Your task to perform on an android device: Open accessibility settings Image 0: 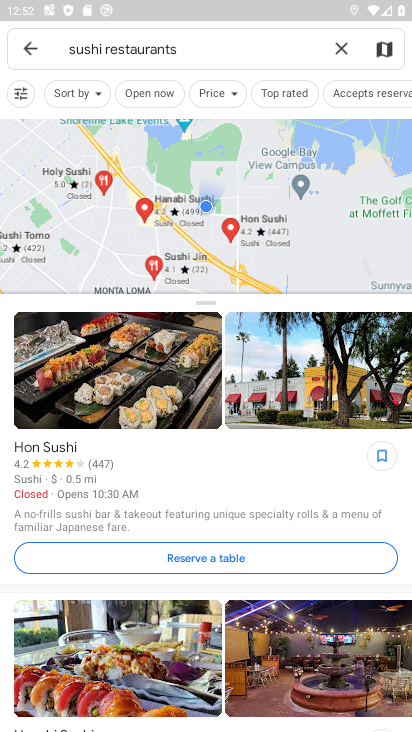
Step 0: press home button
Your task to perform on an android device: Open accessibility settings Image 1: 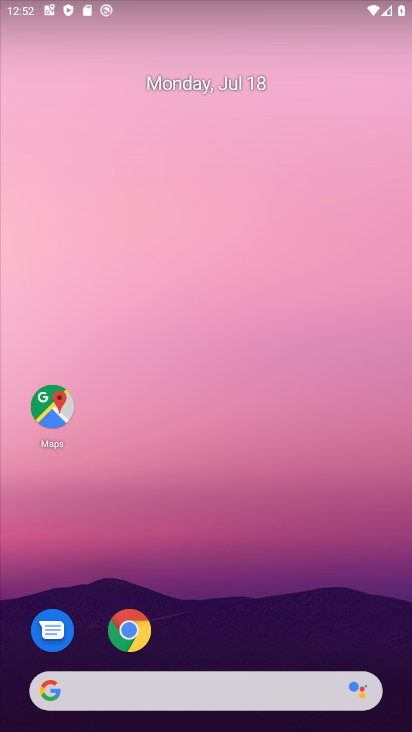
Step 1: drag from (350, 639) to (288, 184)
Your task to perform on an android device: Open accessibility settings Image 2: 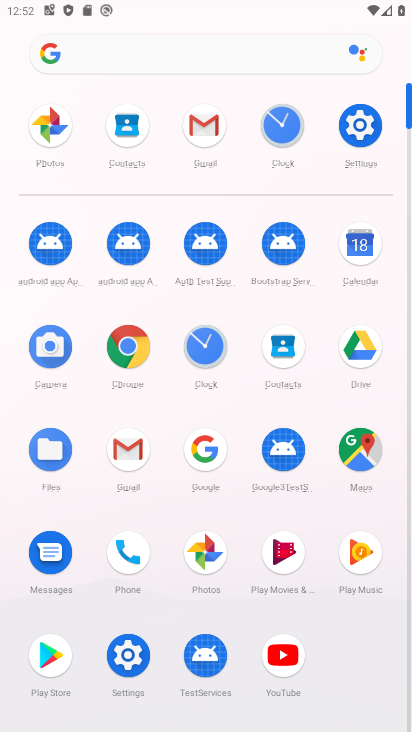
Step 2: click (359, 130)
Your task to perform on an android device: Open accessibility settings Image 3: 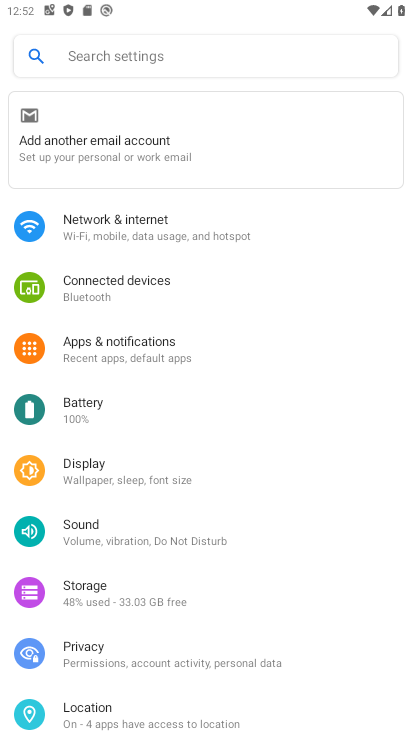
Step 3: drag from (310, 607) to (308, 57)
Your task to perform on an android device: Open accessibility settings Image 4: 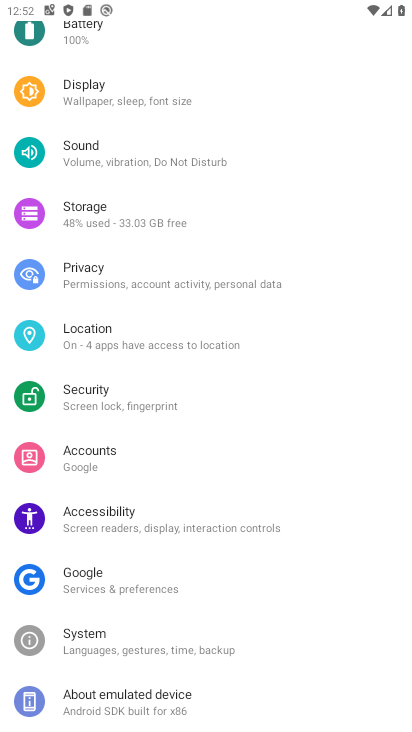
Step 4: click (265, 516)
Your task to perform on an android device: Open accessibility settings Image 5: 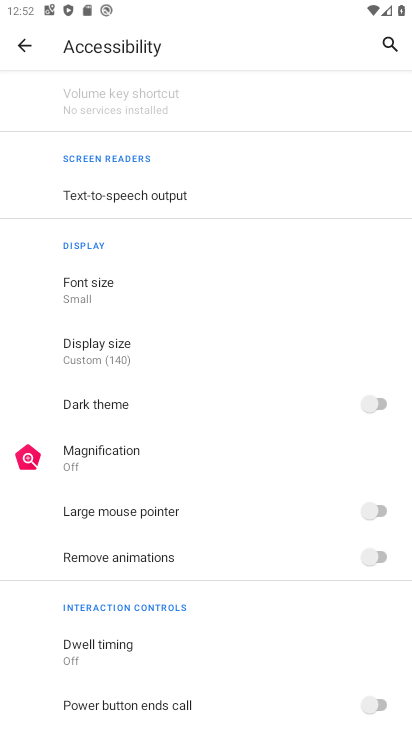
Step 5: task complete